Your task to perform on an android device: toggle airplane mode Image 0: 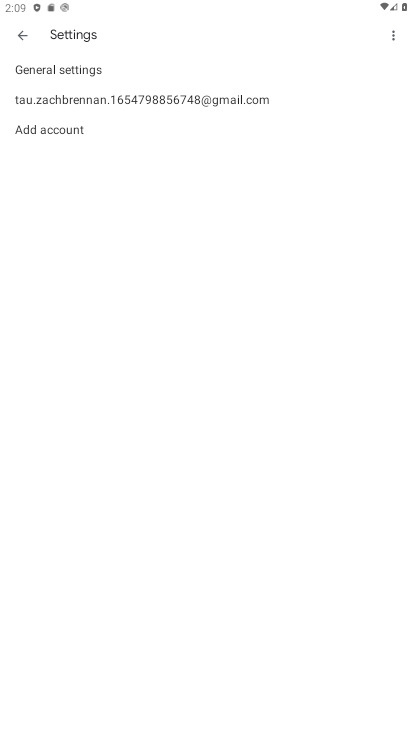
Step 0: press home button
Your task to perform on an android device: toggle airplane mode Image 1: 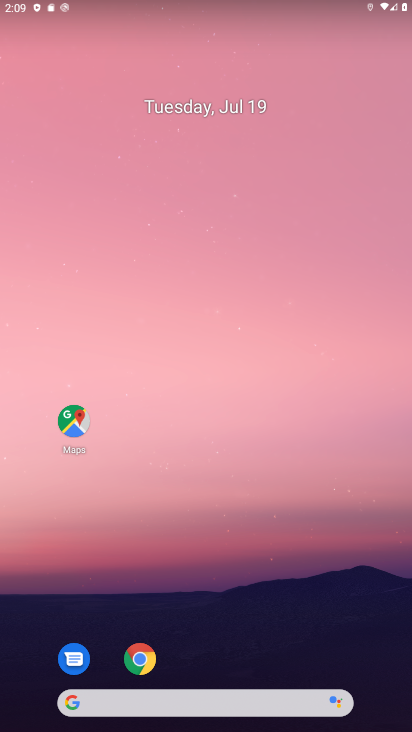
Step 1: drag from (234, 545) to (182, 17)
Your task to perform on an android device: toggle airplane mode Image 2: 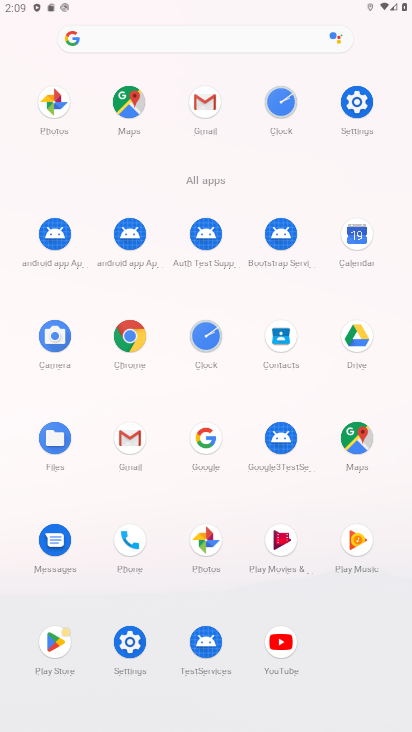
Step 2: click (355, 109)
Your task to perform on an android device: toggle airplane mode Image 3: 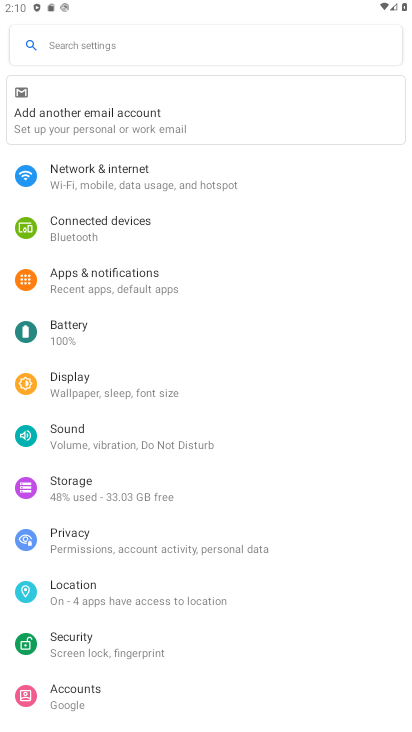
Step 3: click (134, 164)
Your task to perform on an android device: toggle airplane mode Image 4: 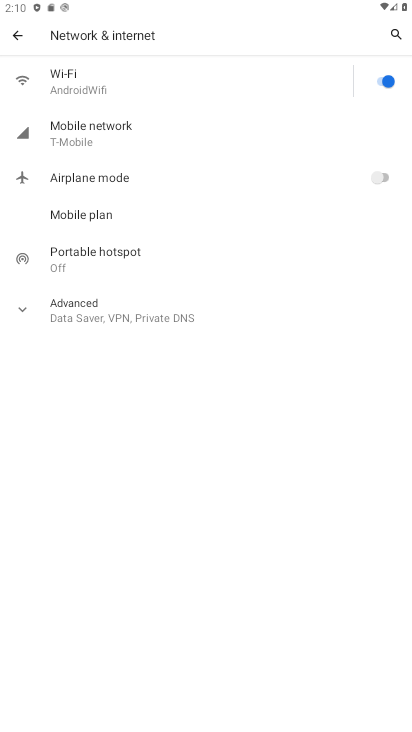
Step 4: click (378, 175)
Your task to perform on an android device: toggle airplane mode Image 5: 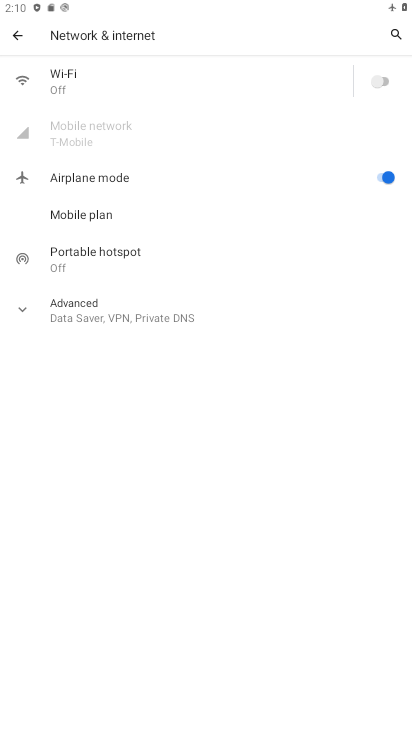
Step 5: task complete